Your task to perform on an android device: Open eBay Image 0: 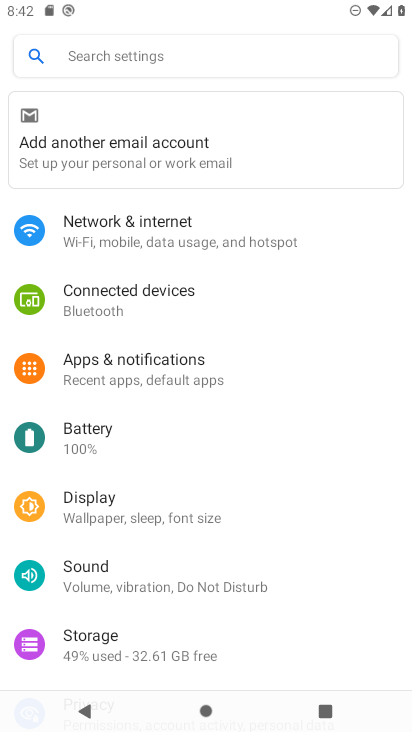
Step 0: press home button
Your task to perform on an android device: Open eBay Image 1: 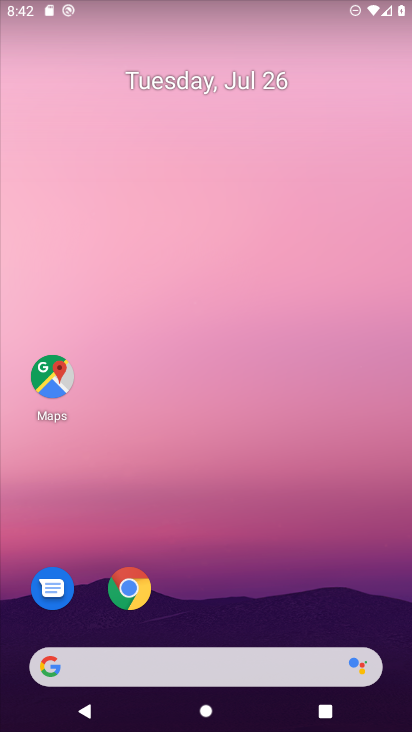
Step 1: click (142, 677)
Your task to perform on an android device: Open eBay Image 2: 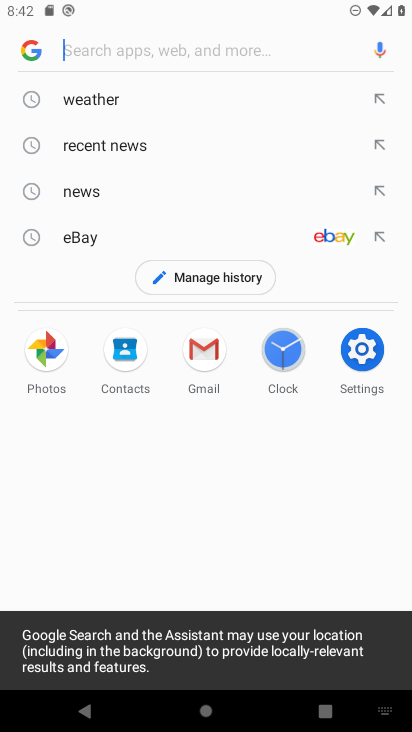
Step 2: click (73, 247)
Your task to perform on an android device: Open eBay Image 3: 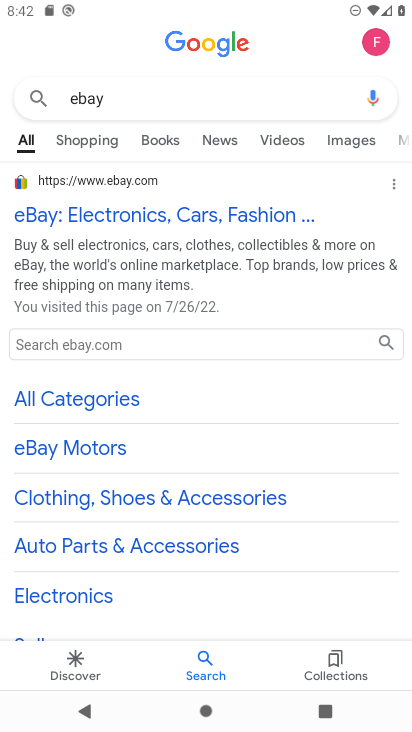
Step 3: click (67, 217)
Your task to perform on an android device: Open eBay Image 4: 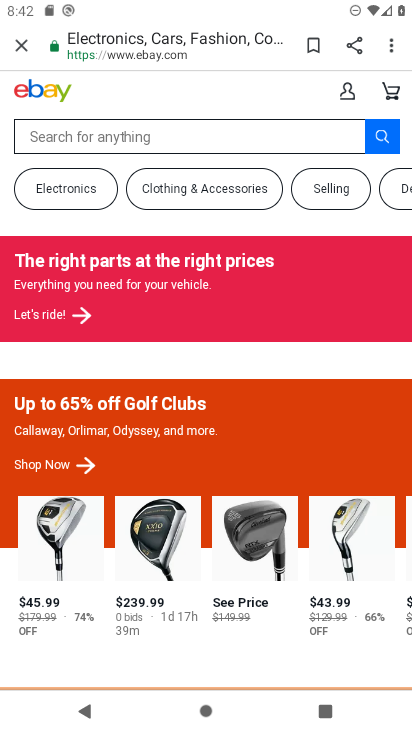
Step 4: task complete